Your task to perform on an android device: Go to Google Image 0: 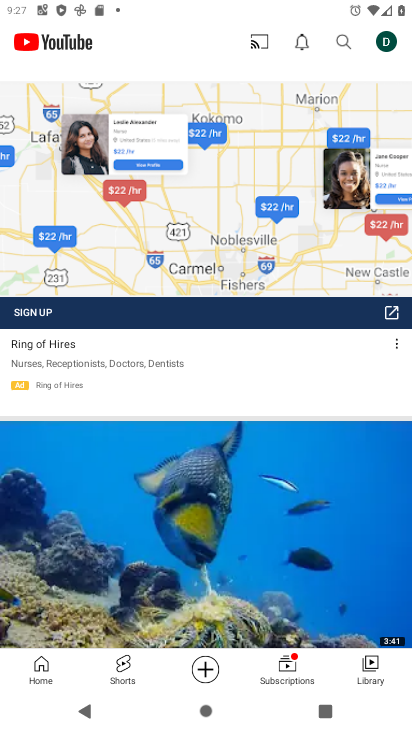
Step 0: press home button
Your task to perform on an android device: Go to Google Image 1: 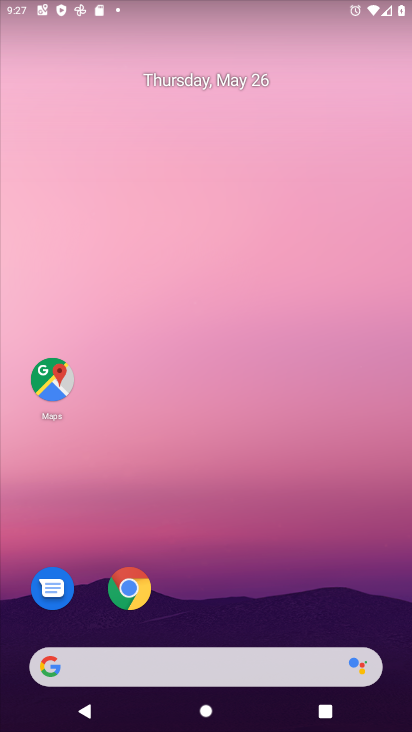
Step 1: drag from (369, 601) to (285, 54)
Your task to perform on an android device: Go to Google Image 2: 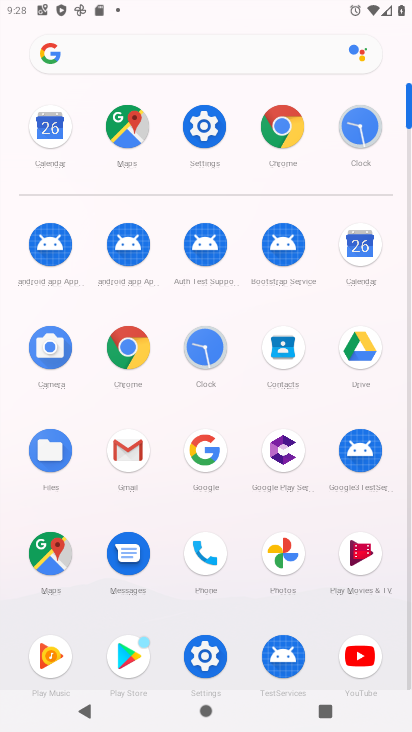
Step 2: click (195, 457)
Your task to perform on an android device: Go to Google Image 3: 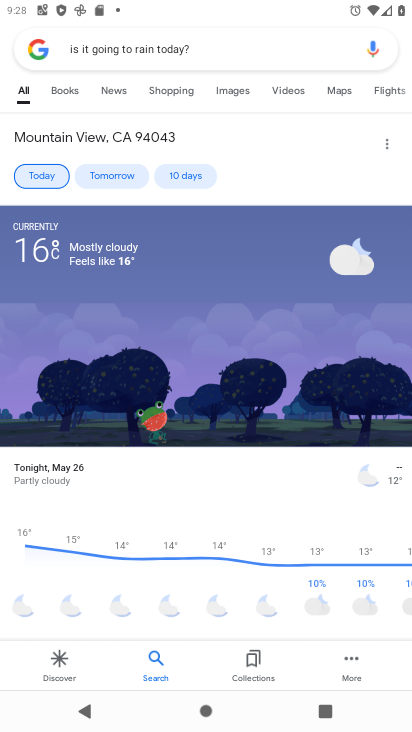
Step 3: task complete